Your task to perform on an android device: Open Android settings Image 0: 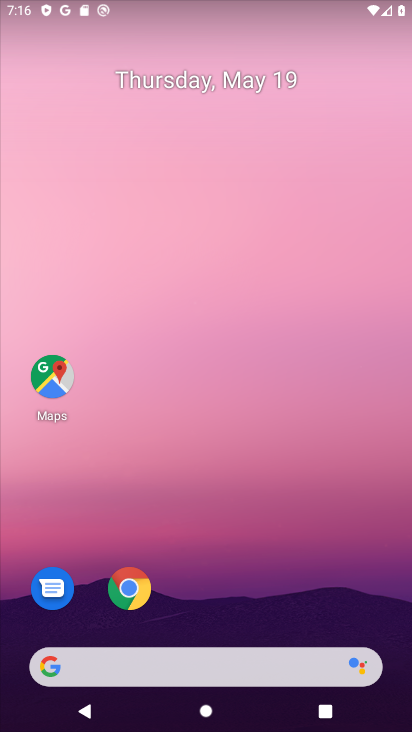
Step 0: drag from (301, 637) to (202, 0)
Your task to perform on an android device: Open Android settings Image 1: 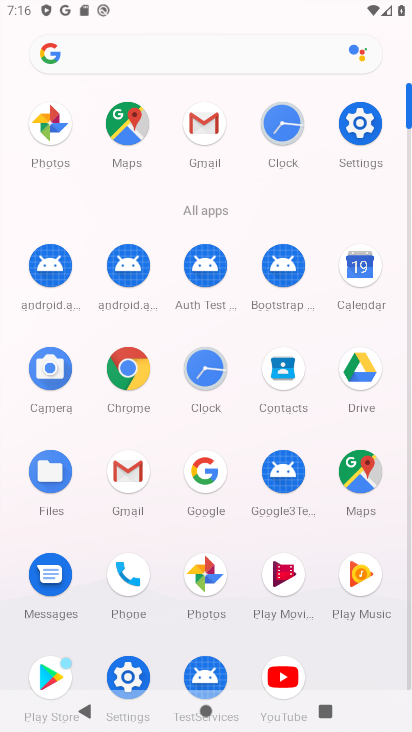
Step 1: click (122, 674)
Your task to perform on an android device: Open Android settings Image 2: 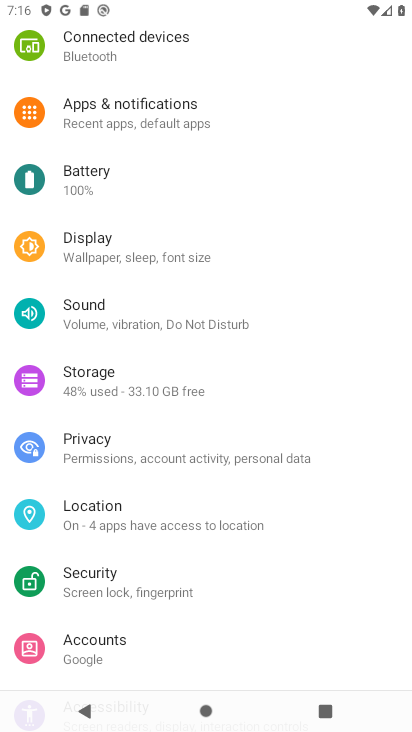
Step 2: task complete